Your task to perform on an android device: delete location history Image 0: 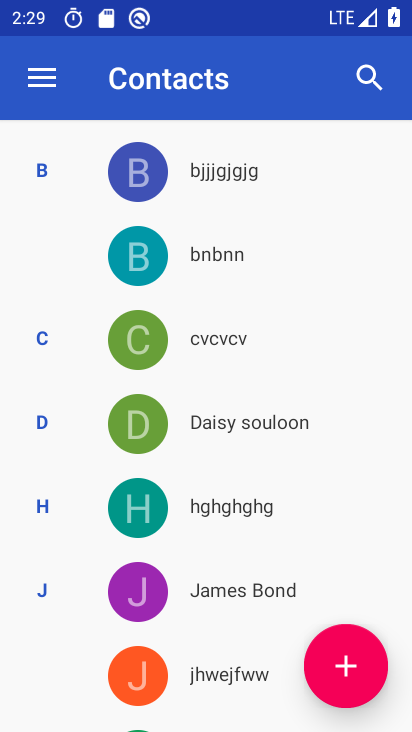
Step 0: press home button
Your task to perform on an android device: delete location history Image 1: 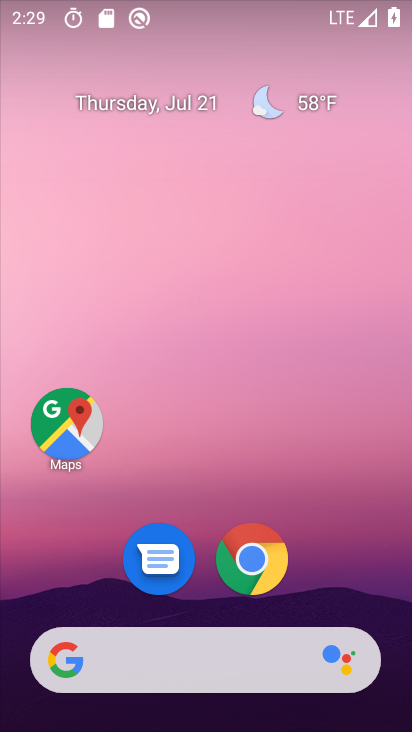
Step 1: drag from (384, 530) to (360, 126)
Your task to perform on an android device: delete location history Image 2: 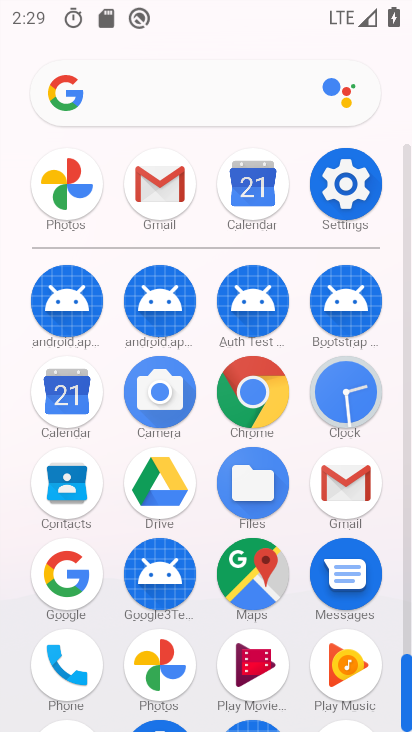
Step 2: click (246, 586)
Your task to perform on an android device: delete location history Image 3: 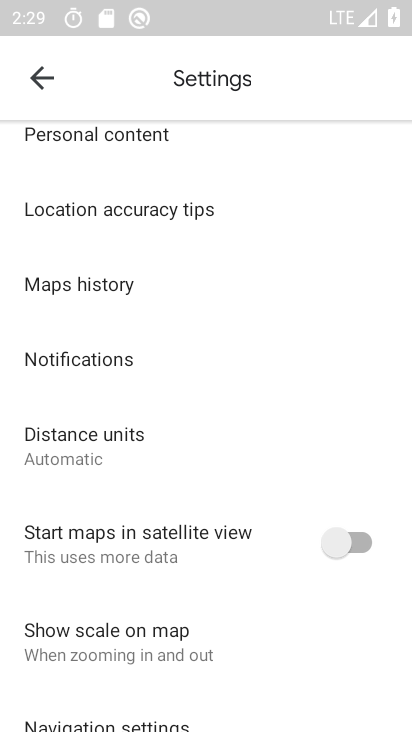
Step 3: press back button
Your task to perform on an android device: delete location history Image 4: 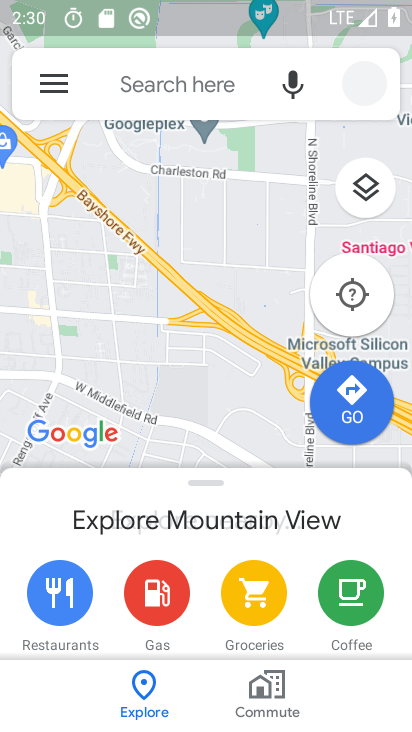
Step 4: press back button
Your task to perform on an android device: delete location history Image 5: 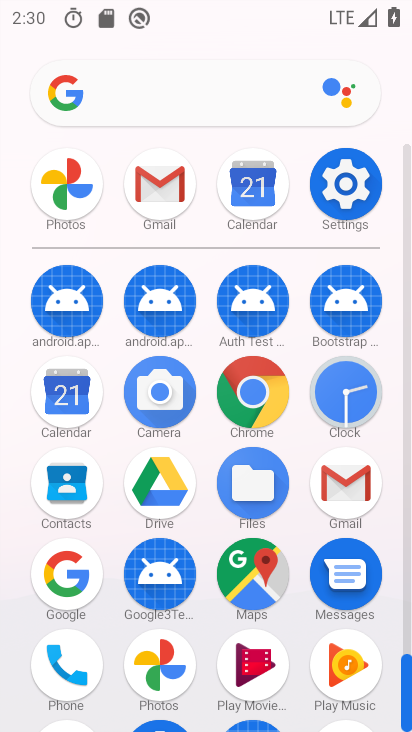
Step 5: click (267, 574)
Your task to perform on an android device: delete location history Image 6: 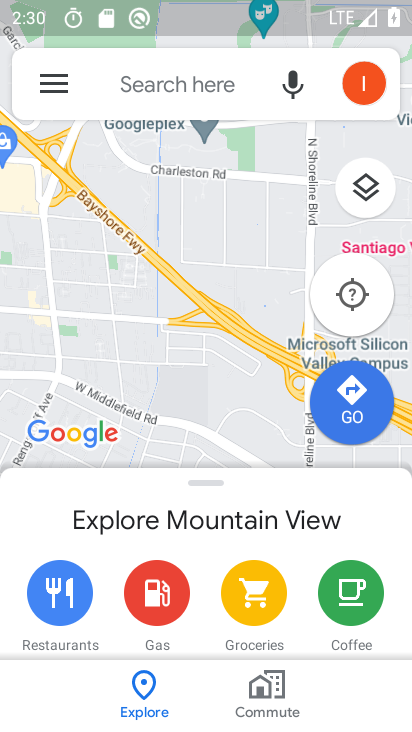
Step 6: click (58, 81)
Your task to perform on an android device: delete location history Image 7: 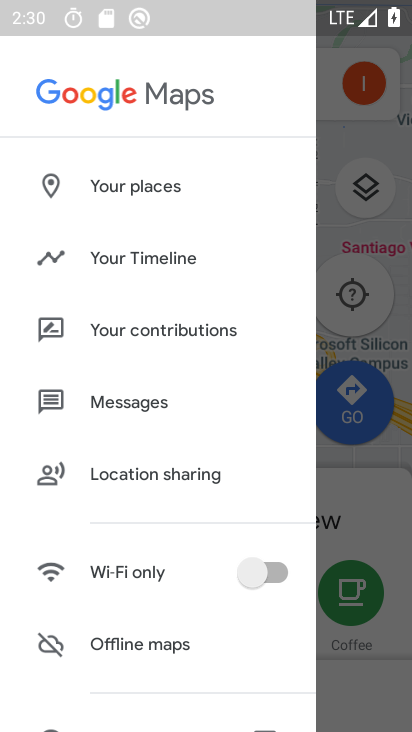
Step 7: click (202, 247)
Your task to perform on an android device: delete location history Image 8: 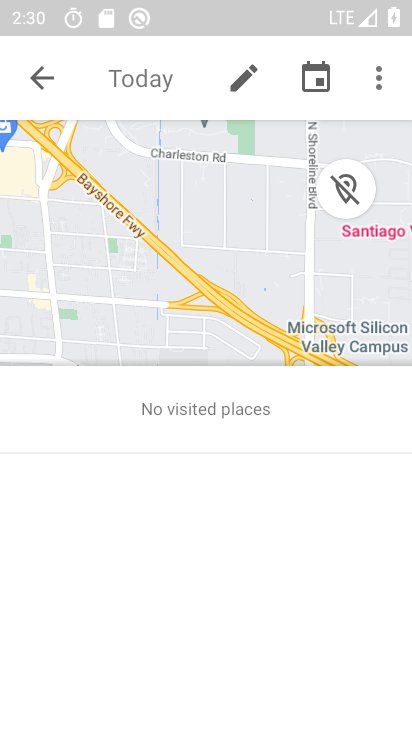
Step 8: click (383, 93)
Your task to perform on an android device: delete location history Image 9: 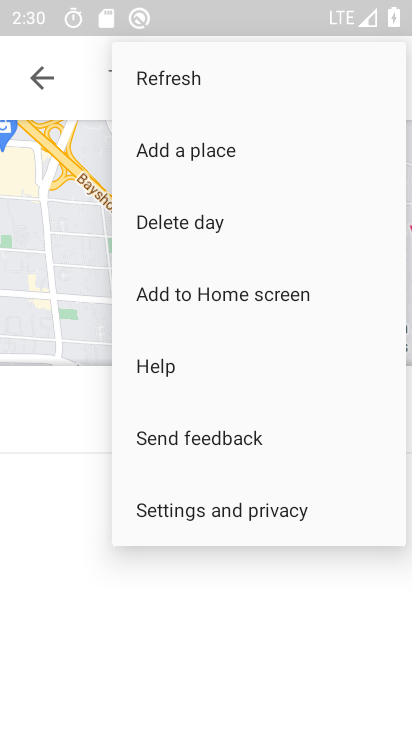
Step 9: click (294, 513)
Your task to perform on an android device: delete location history Image 10: 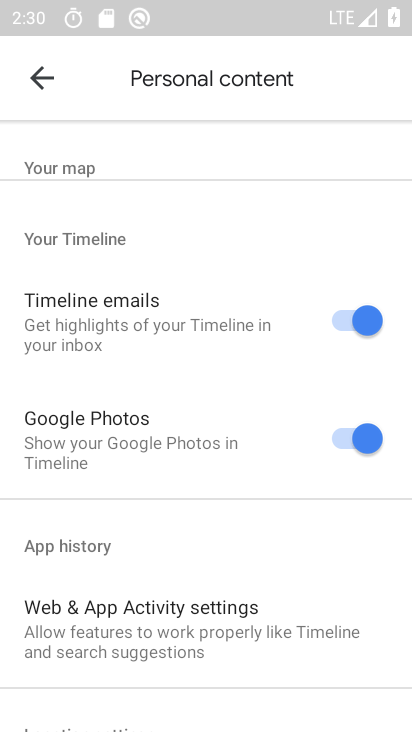
Step 10: drag from (299, 583) to (298, 477)
Your task to perform on an android device: delete location history Image 11: 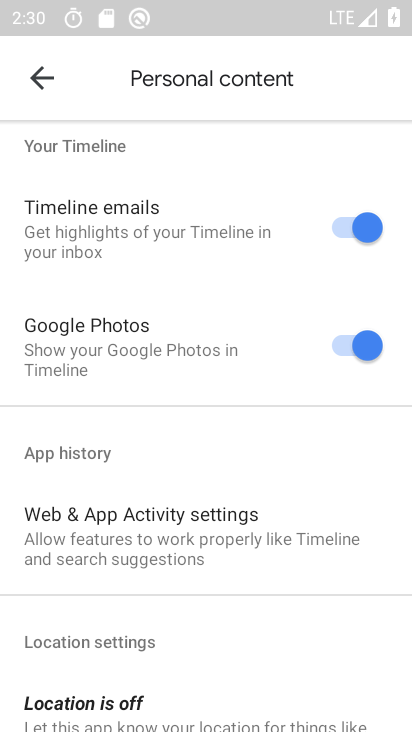
Step 11: drag from (295, 626) to (297, 511)
Your task to perform on an android device: delete location history Image 12: 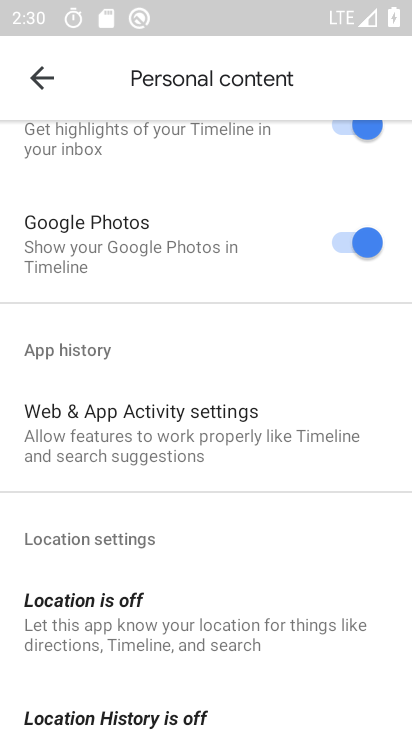
Step 12: drag from (287, 618) to (282, 484)
Your task to perform on an android device: delete location history Image 13: 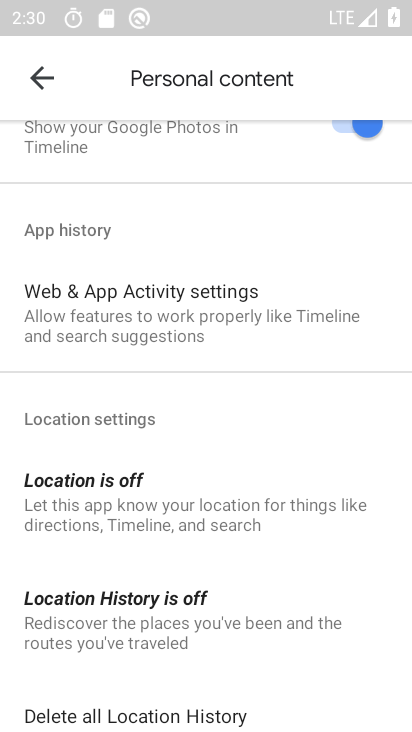
Step 13: drag from (281, 659) to (284, 526)
Your task to perform on an android device: delete location history Image 14: 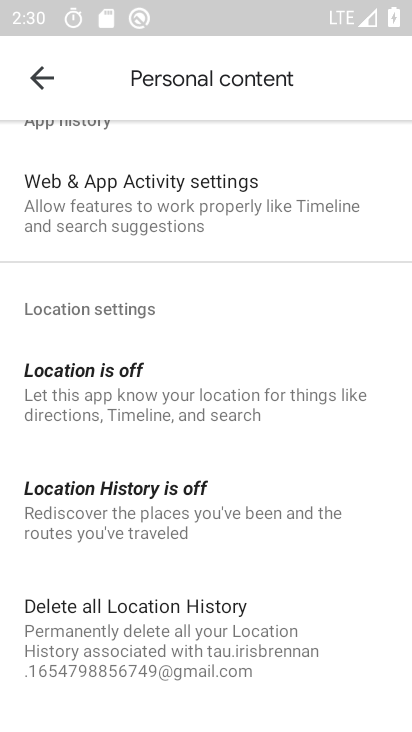
Step 14: click (278, 646)
Your task to perform on an android device: delete location history Image 15: 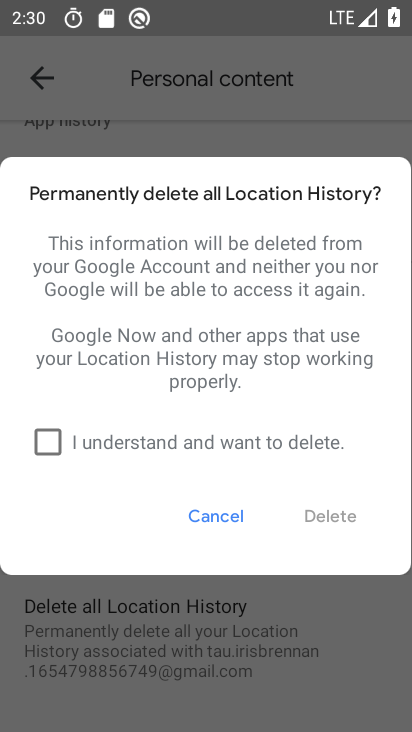
Step 15: click (33, 450)
Your task to perform on an android device: delete location history Image 16: 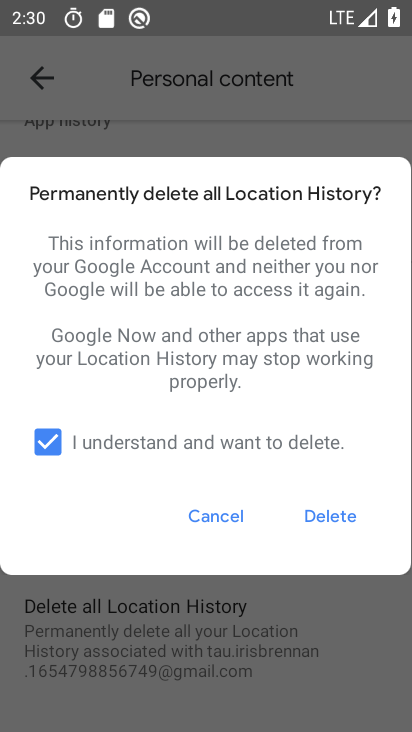
Step 16: click (351, 516)
Your task to perform on an android device: delete location history Image 17: 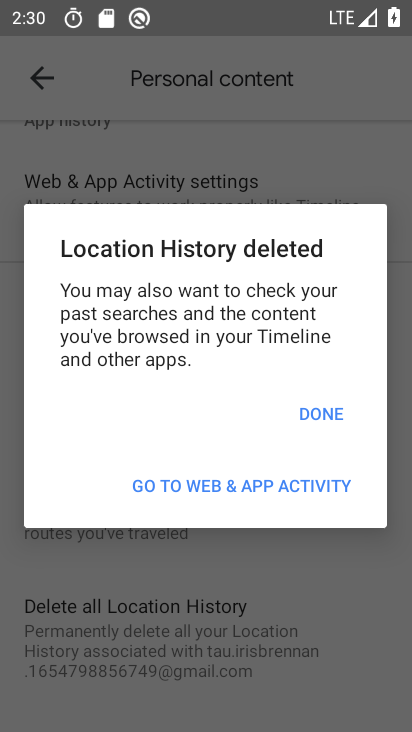
Step 17: task complete